Your task to perform on an android device: find which apps use the phone's location Image 0: 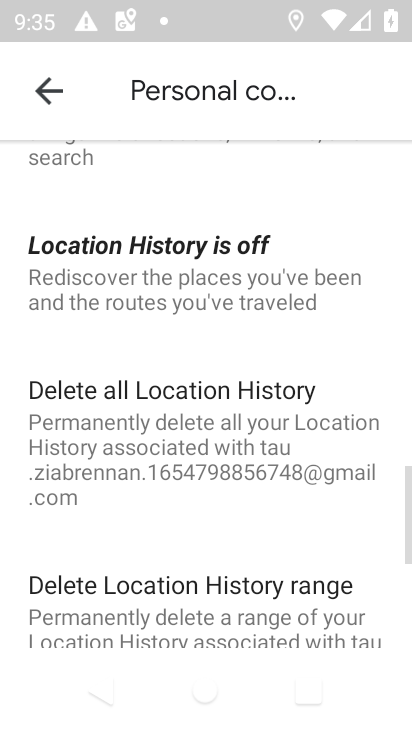
Step 0: press home button
Your task to perform on an android device: find which apps use the phone's location Image 1: 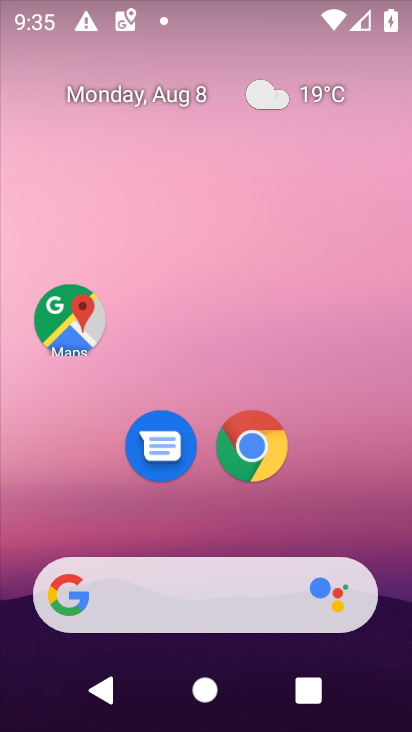
Step 1: drag from (394, 576) to (365, 156)
Your task to perform on an android device: find which apps use the phone's location Image 2: 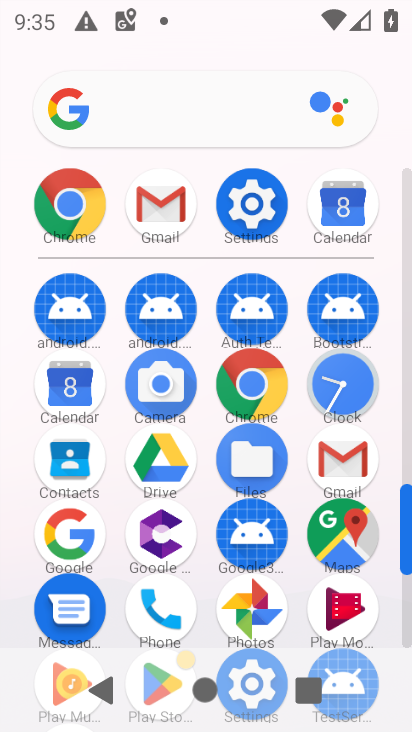
Step 2: click (408, 633)
Your task to perform on an android device: find which apps use the phone's location Image 3: 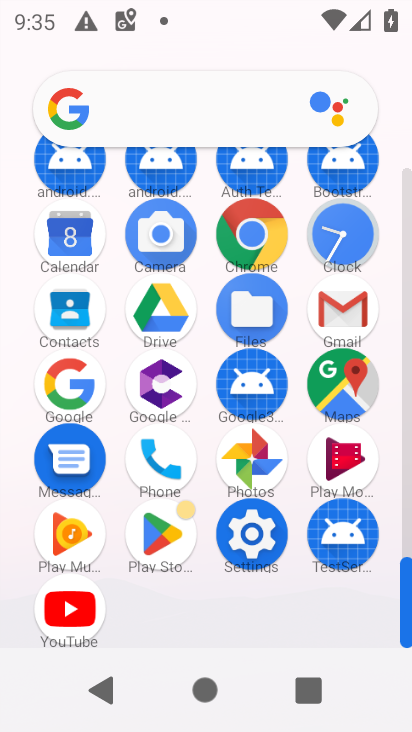
Step 3: click (243, 535)
Your task to perform on an android device: find which apps use the phone's location Image 4: 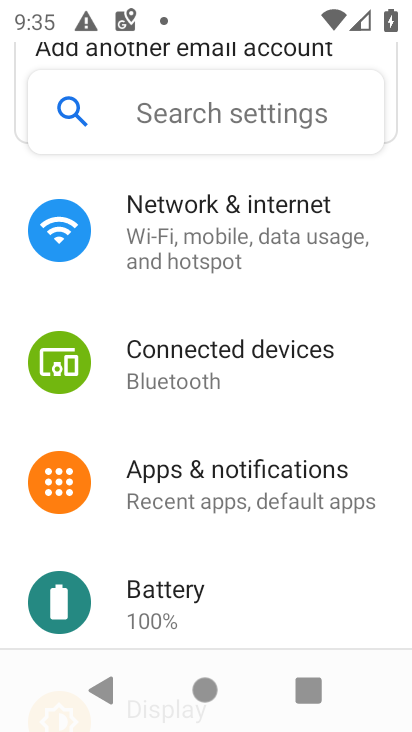
Step 4: drag from (255, 581) to (260, 360)
Your task to perform on an android device: find which apps use the phone's location Image 5: 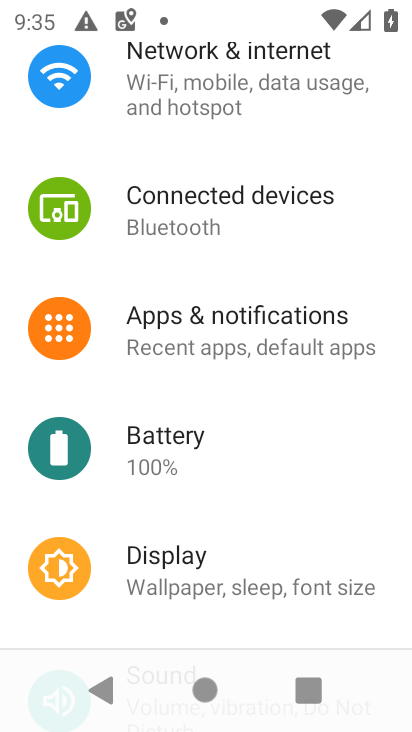
Step 5: drag from (301, 552) to (283, 256)
Your task to perform on an android device: find which apps use the phone's location Image 6: 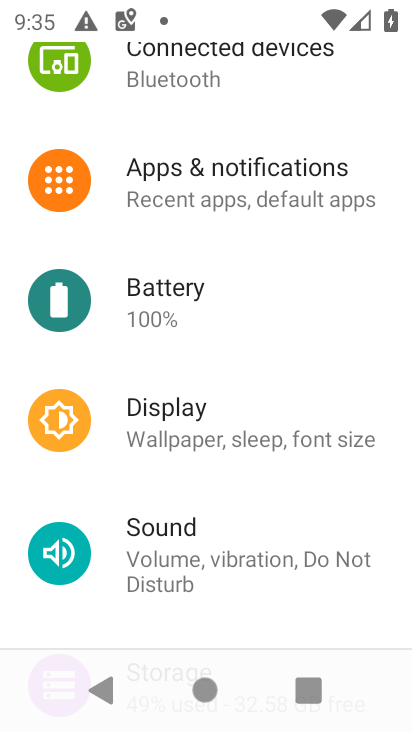
Step 6: drag from (251, 518) to (270, 274)
Your task to perform on an android device: find which apps use the phone's location Image 7: 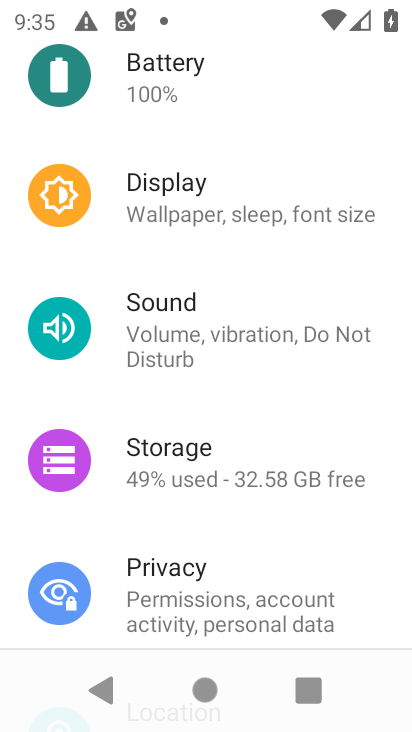
Step 7: drag from (252, 542) to (256, 271)
Your task to perform on an android device: find which apps use the phone's location Image 8: 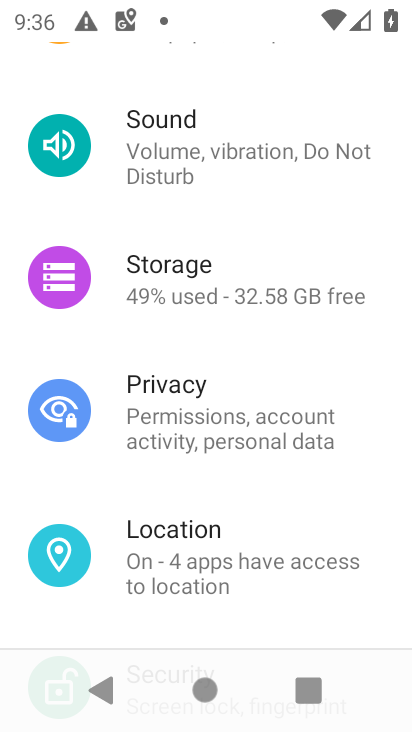
Step 8: click (179, 555)
Your task to perform on an android device: find which apps use the phone's location Image 9: 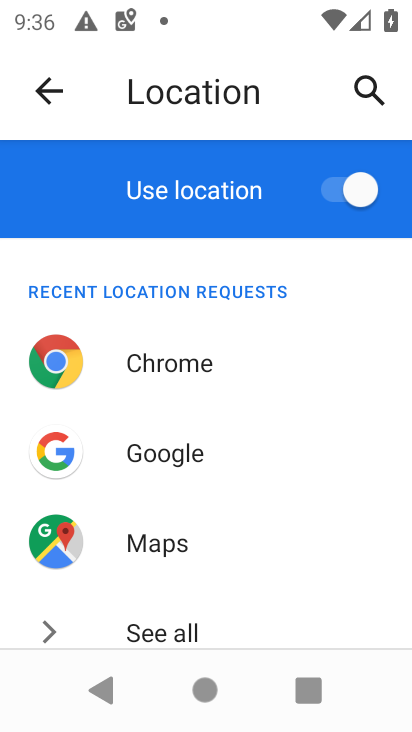
Step 9: drag from (226, 601) to (226, 206)
Your task to perform on an android device: find which apps use the phone's location Image 10: 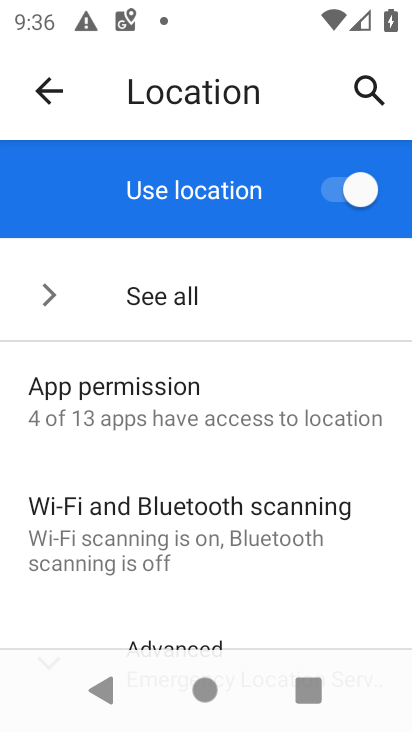
Step 10: drag from (211, 536) to (209, 271)
Your task to perform on an android device: find which apps use the phone's location Image 11: 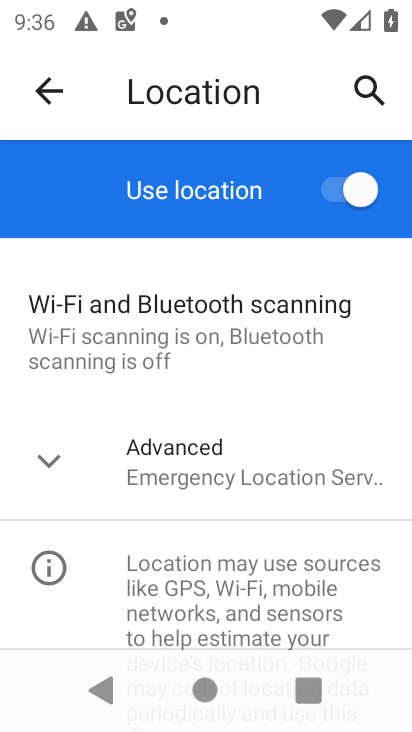
Step 11: click (49, 474)
Your task to perform on an android device: find which apps use the phone's location Image 12: 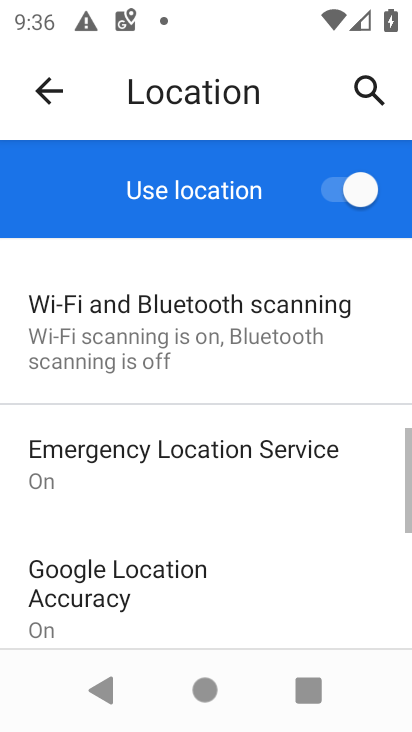
Step 12: drag from (207, 412) to (212, 640)
Your task to perform on an android device: find which apps use the phone's location Image 13: 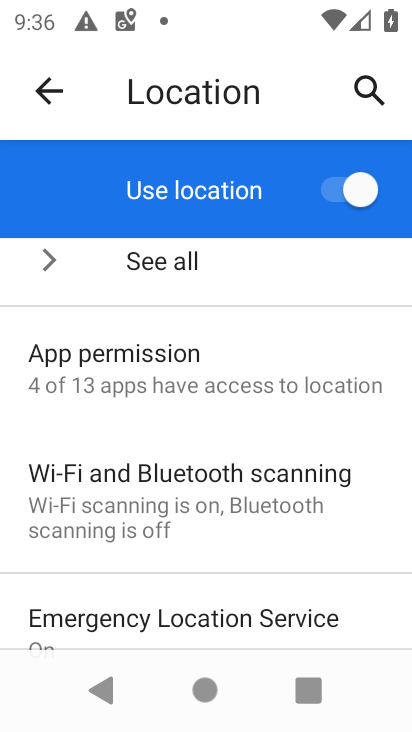
Step 13: click (93, 350)
Your task to perform on an android device: find which apps use the phone's location Image 14: 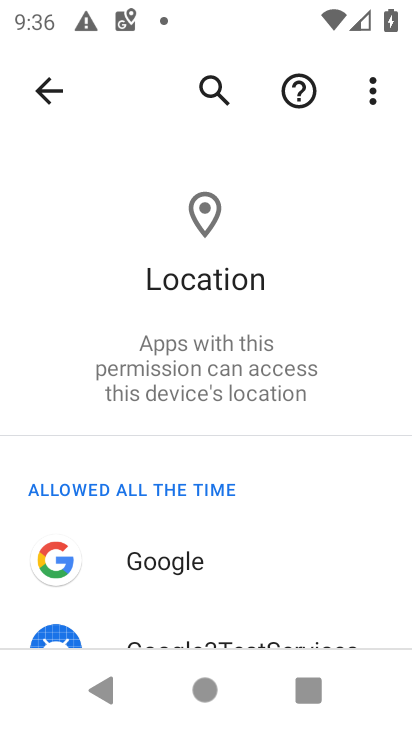
Step 14: task complete